Your task to perform on an android device: turn off notifications settings in the gmail app Image 0: 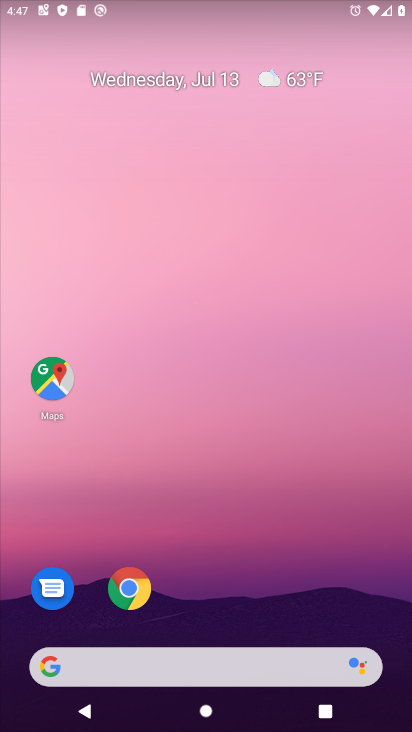
Step 0: drag from (191, 672) to (231, 45)
Your task to perform on an android device: turn off notifications settings in the gmail app Image 1: 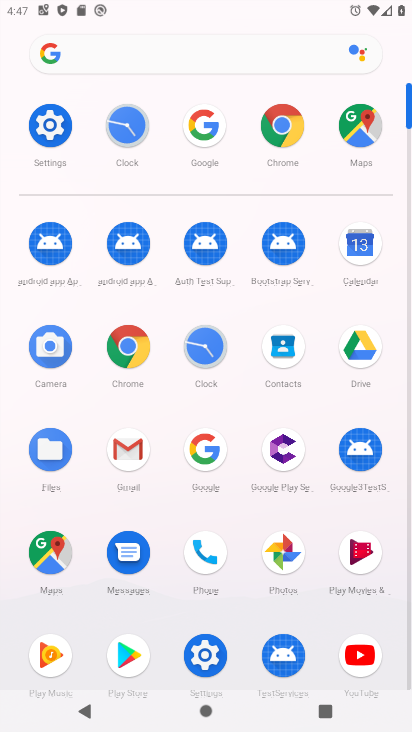
Step 1: click (127, 448)
Your task to perform on an android device: turn off notifications settings in the gmail app Image 2: 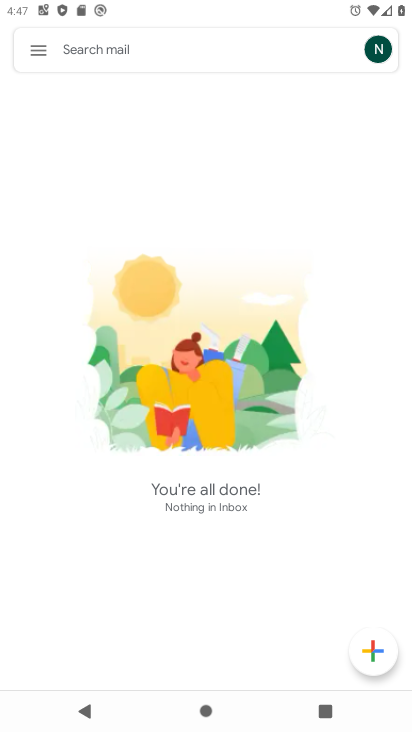
Step 2: click (38, 48)
Your task to perform on an android device: turn off notifications settings in the gmail app Image 3: 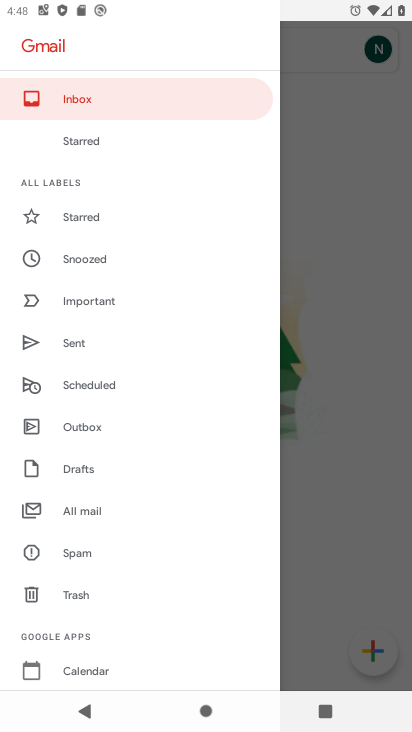
Step 3: drag from (105, 571) to (131, 455)
Your task to perform on an android device: turn off notifications settings in the gmail app Image 4: 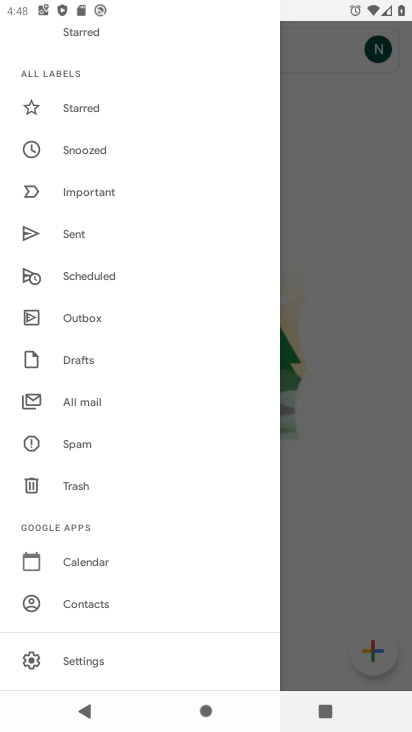
Step 4: drag from (97, 595) to (117, 483)
Your task to perform on an android device: turn off notifications settings in the gmail app Image 5: 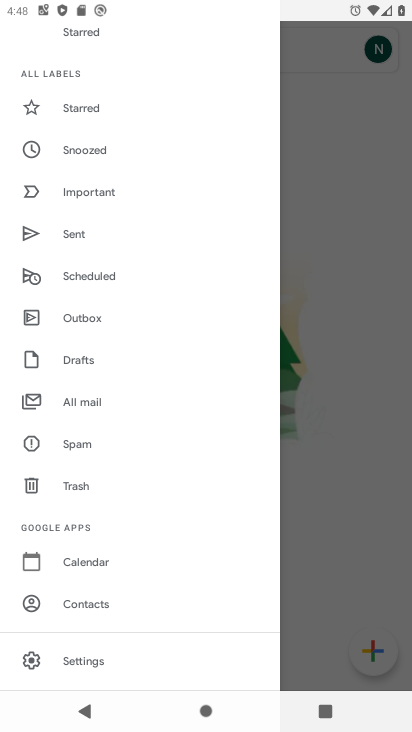
Step 5: click (86, 658)
Your task to perform on an android device: turn off notifications settings in the gmail app Image 6: 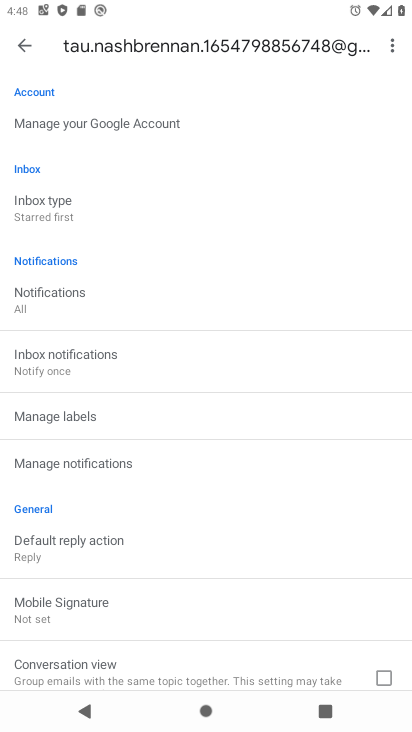
Step 6: click (114, 463)
Your task to perform on an android device: turn off notifications settings in the gmail app Image 7: 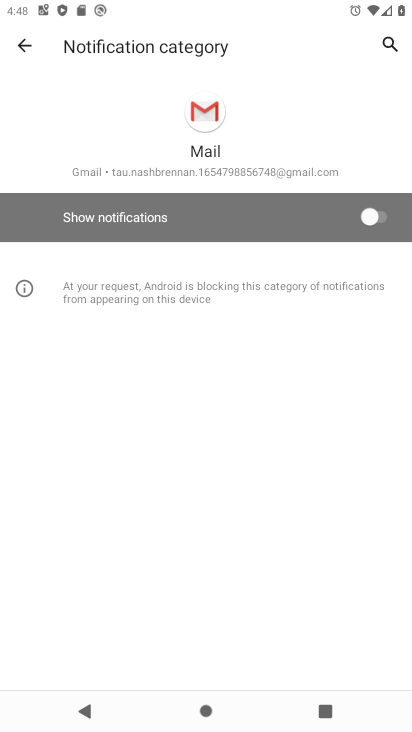
Step 7: task complete